Your task to perform on an android device: Go to display settings Image 0: 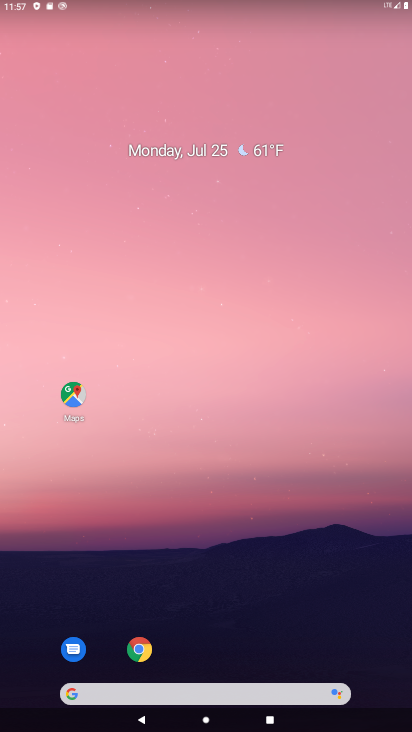
Step 0: drag from (179, 668) to (130, 125)
Your task to perform on an android device: Go to display settings Image 1: 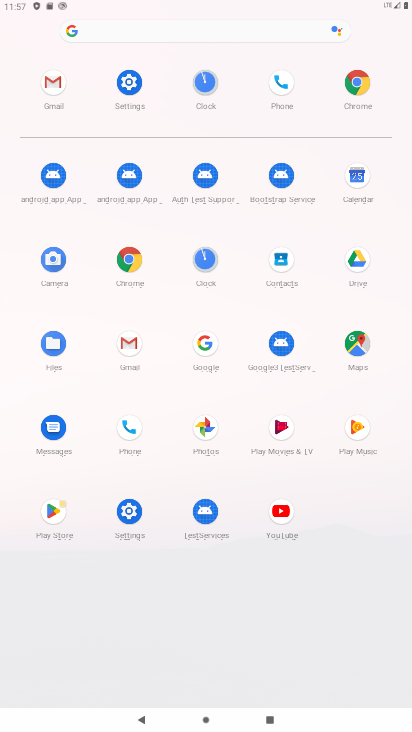
Step 1: click (121, 72)
Your task to perform on an android device: Go to display settings Image 2: 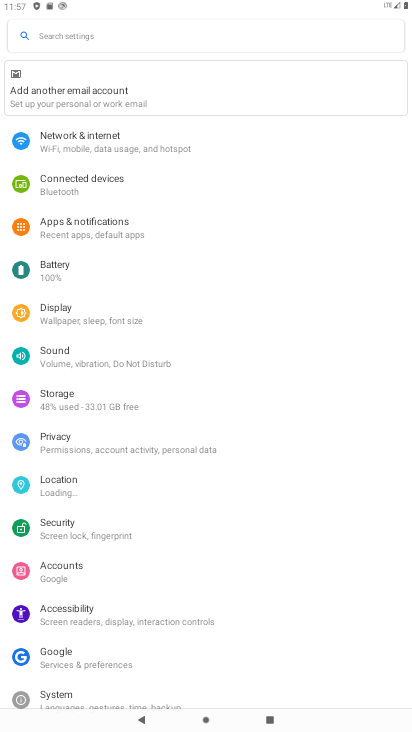
Step 2: click (57, 318)
Your task to perform on an android device: Go to display settings Image 3: 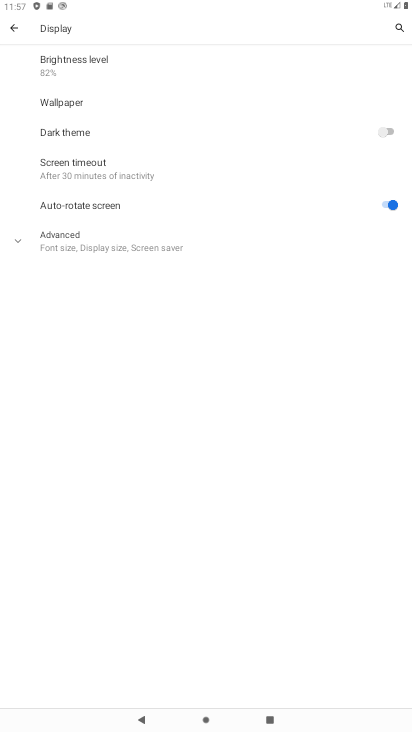
Step 3: task complete